Your task to perform on an android device: See recent photos Image 0: 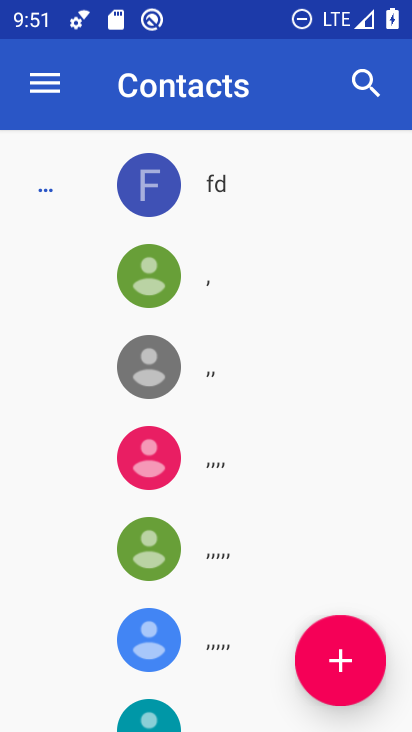
Step 0: press home button
Your task to perform on an android device: See recent photos Image 1: 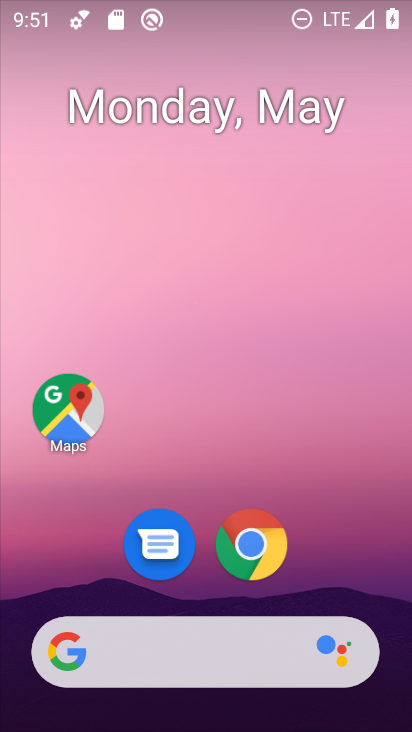
Step 1: drag from (372, 561) to (324, 88)
Your task to perform on an android device: See recent photos Image 2: 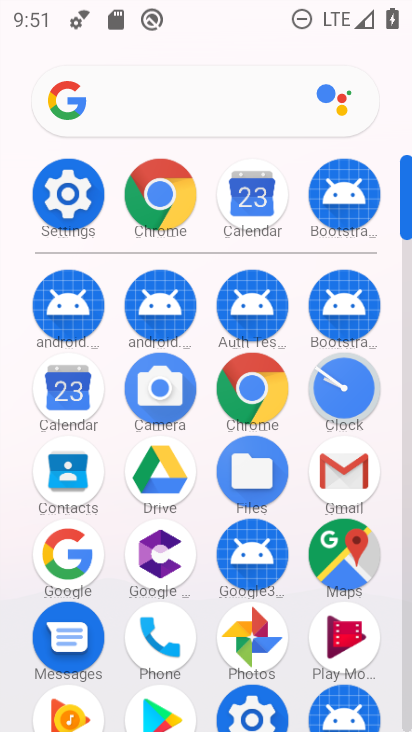
Step 2: click (257, 624)
Your task to perform on an android device: See recent photos Image 3: 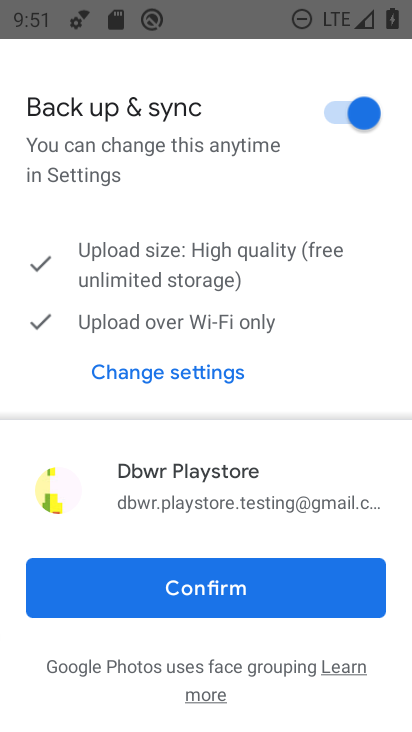
Step 3: click (250, 605)
Your task to perform on an android device: See recent photos Image 4: 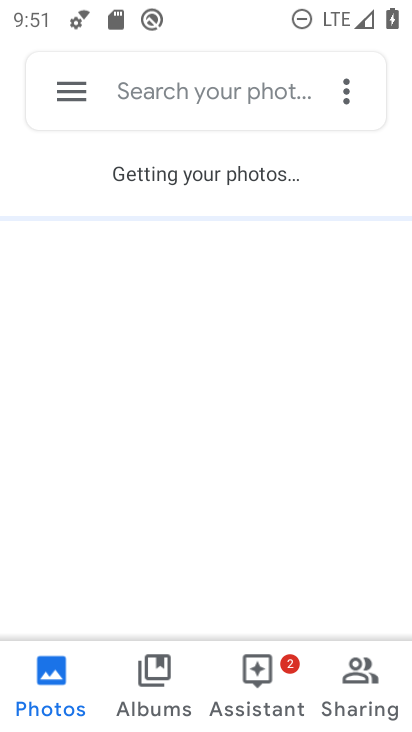
Step 4: click (60, 660)
Your task to perform on an android device: See recent photos Image 5: 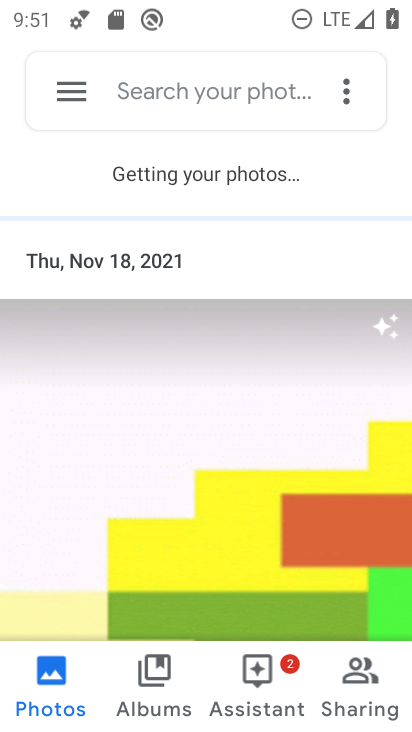
Step 5: task complete